Your task to perform on an android device: What's the latest video from GameSpot Trailers? Image 0: 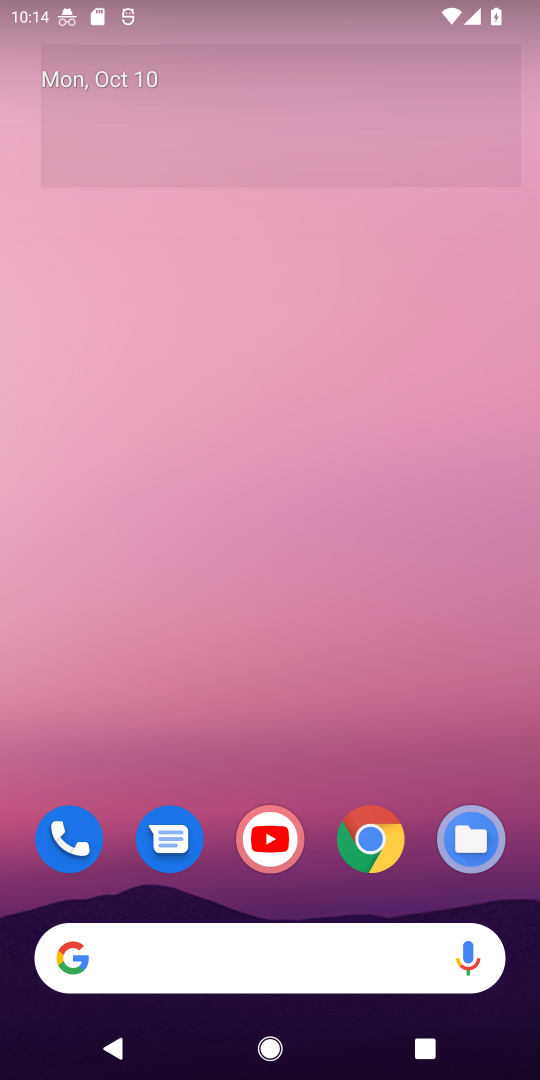
Step 0: drag from (332, 895) to (338, 74)
Your task to perform on an android device: What's the latest video from GameSpot Trailers? Image 1: 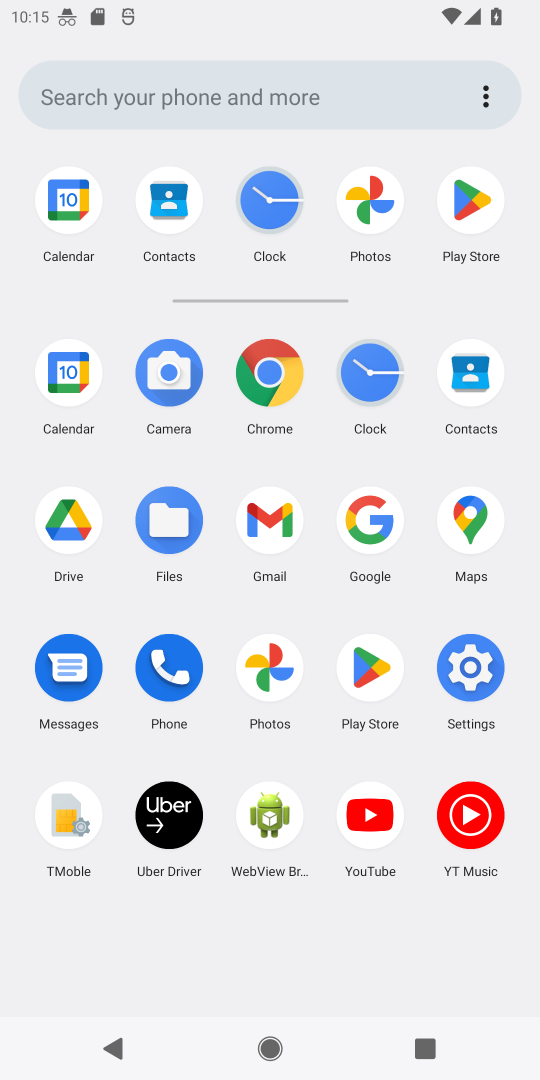
Step 1: click (363, 806)
Your task to perform on an android device: What's the latest video from GameSpot Trailers? Image 2: 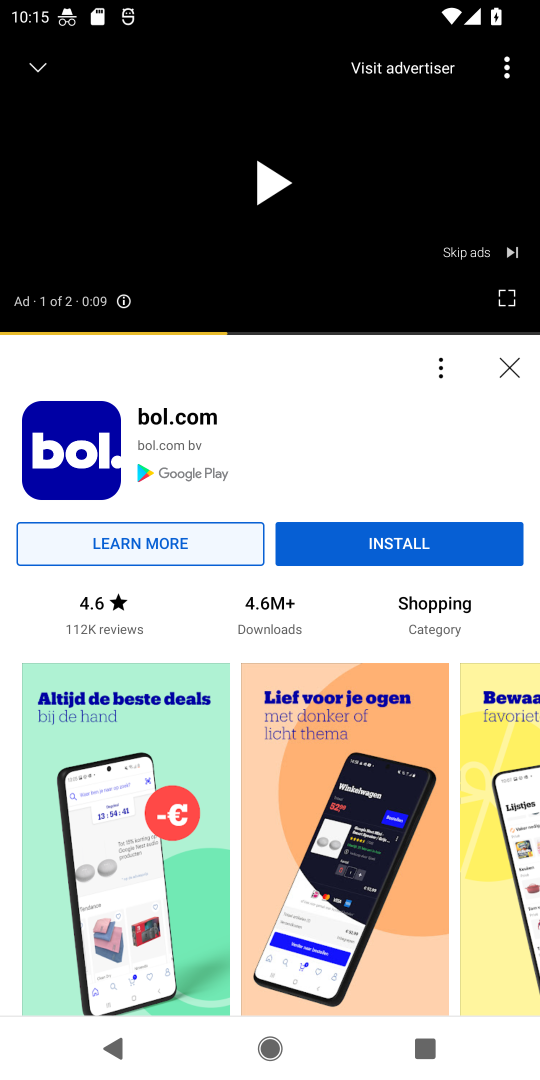
Step 2: drag from (412, 185) to (388, 851)
Your task to perform on an android device: What's the latest video from GameSpot Trailers? Image 3: 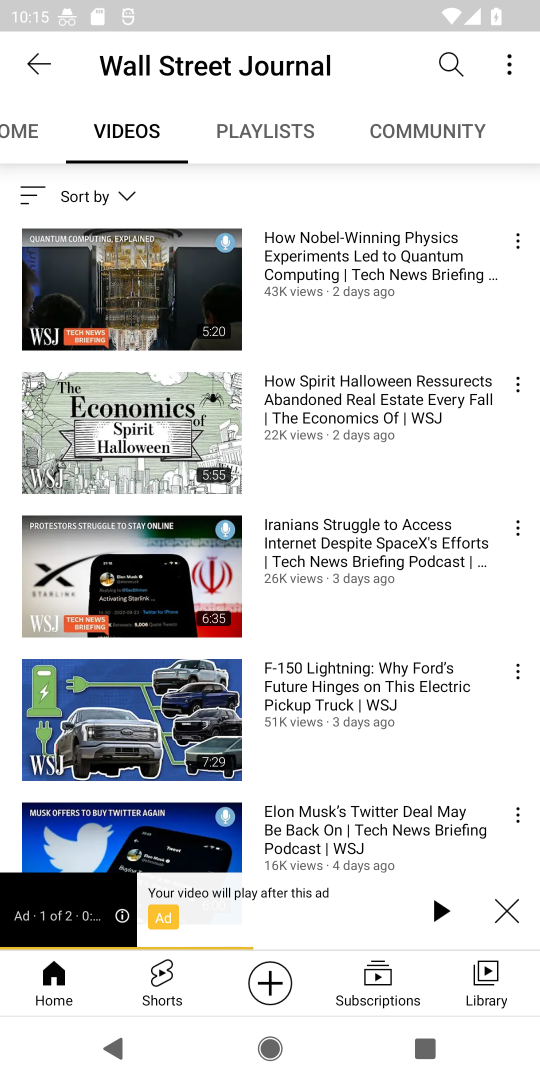
Step 3: click (451, 62)
Your task to perform on an android device: What's the latest video from GameSpot Trailers? Image 4: 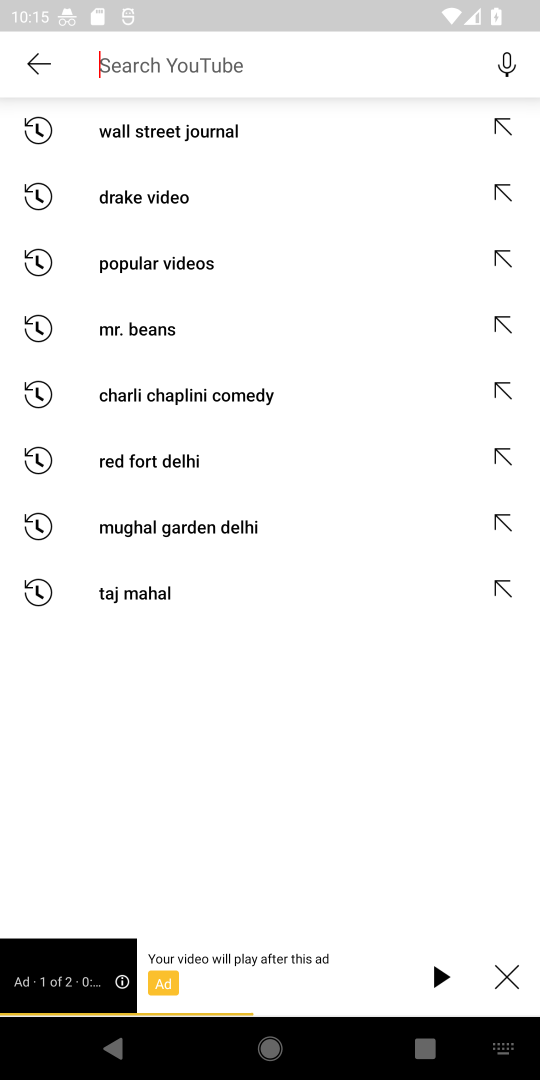
Step 4: type "GameSpot Trailers"
Your task to perform on an android device: What's the latest video from GameSpot Trailers? Image 5: 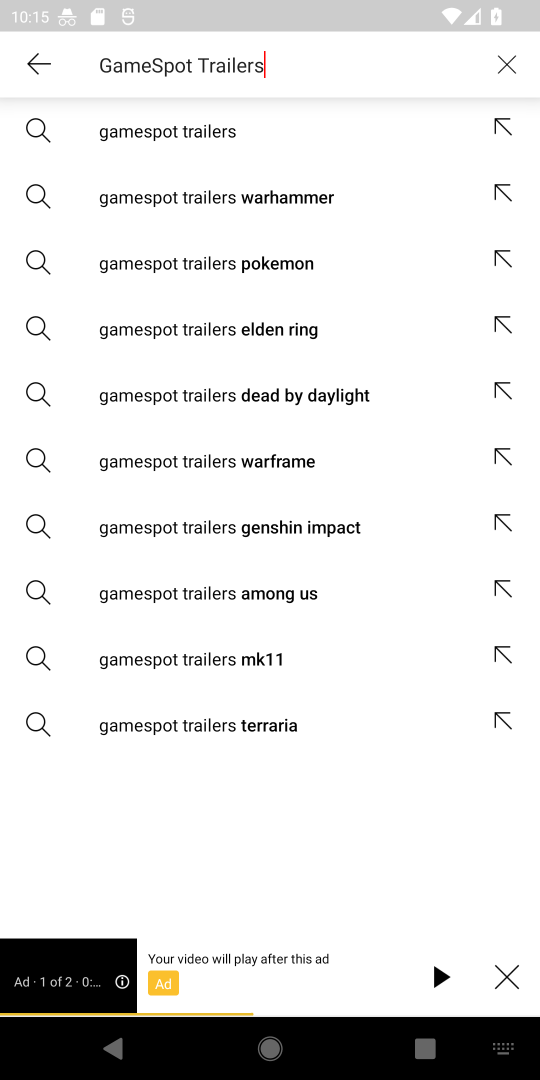
Step 5: press enter
Your task to perform on an android device: What's the latest video from GameSpot Trailers? Image 6: 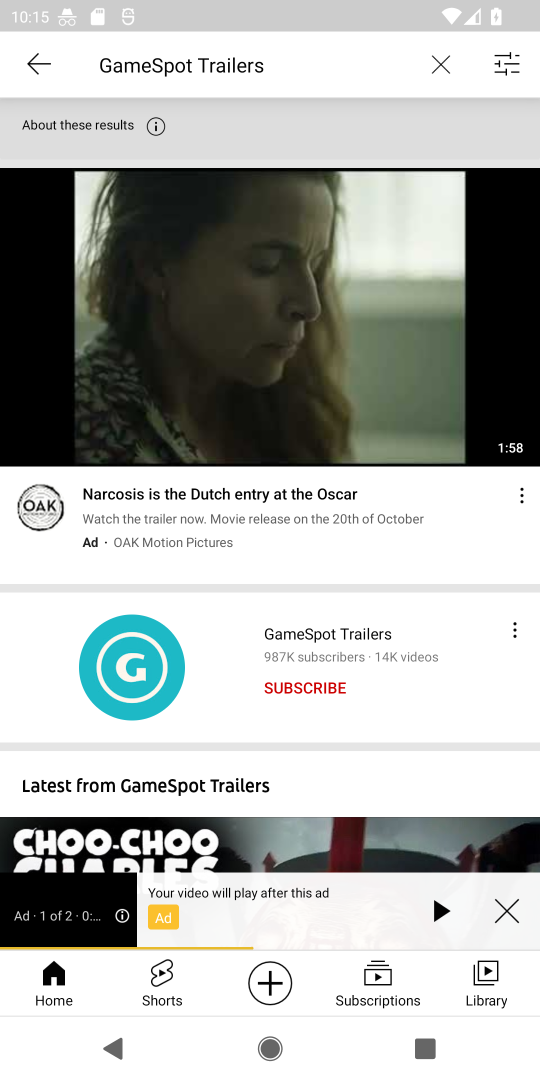
Step 6: drag from (296, 702) to (336, 120)
Your task to perform on an android device: What's the latest video from GameSpot Trailers? Image 7: 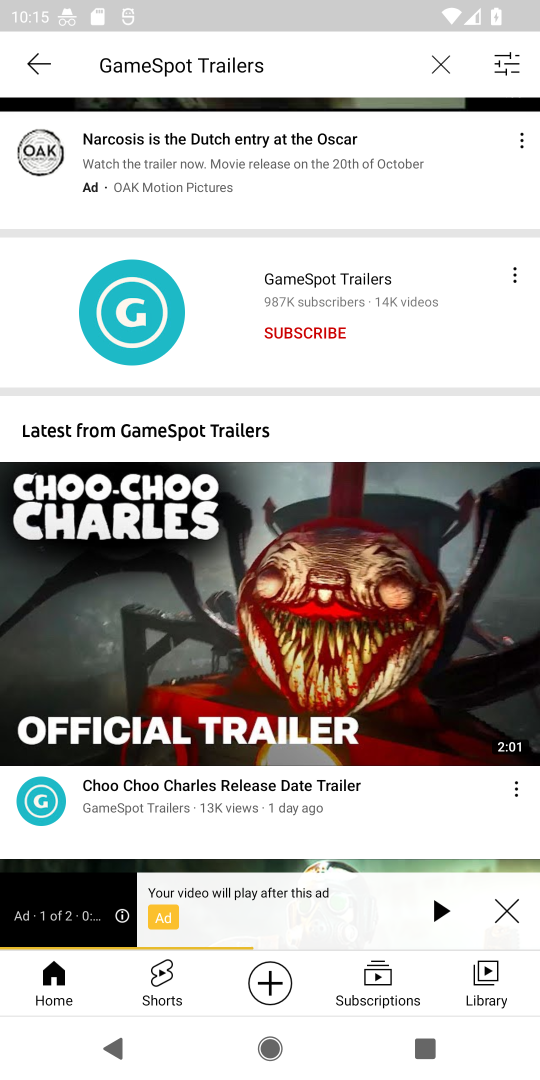
Step 7: drag from (176, 815) to (302, 290)
Your task to perform on an android device: What's the latest video from GameSpot Trailers? Image 8: 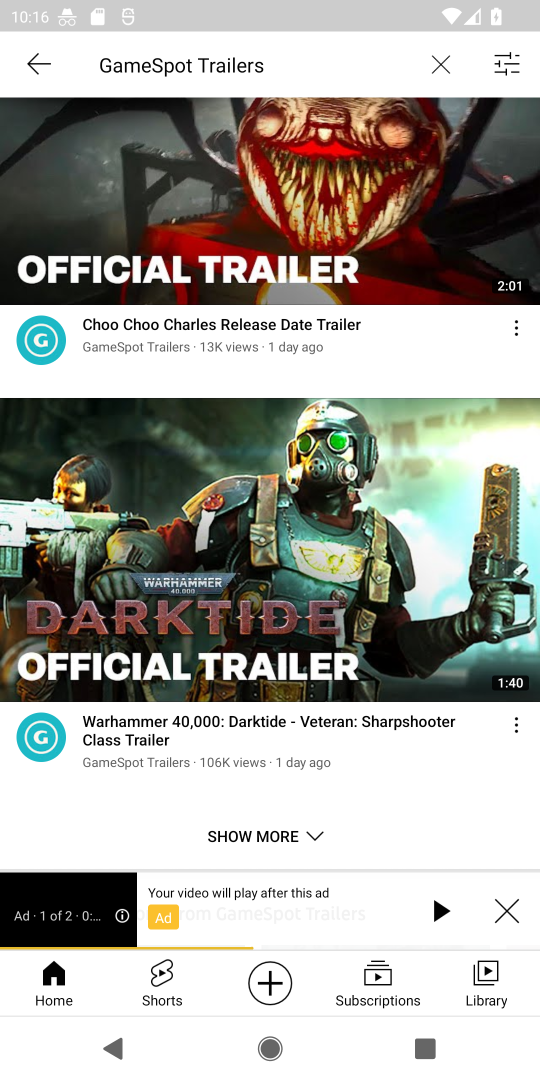
Step 8: click (36, 345)
Your task to perform on an android device: What's the latest video from GameSpot Trailers? Image 9: 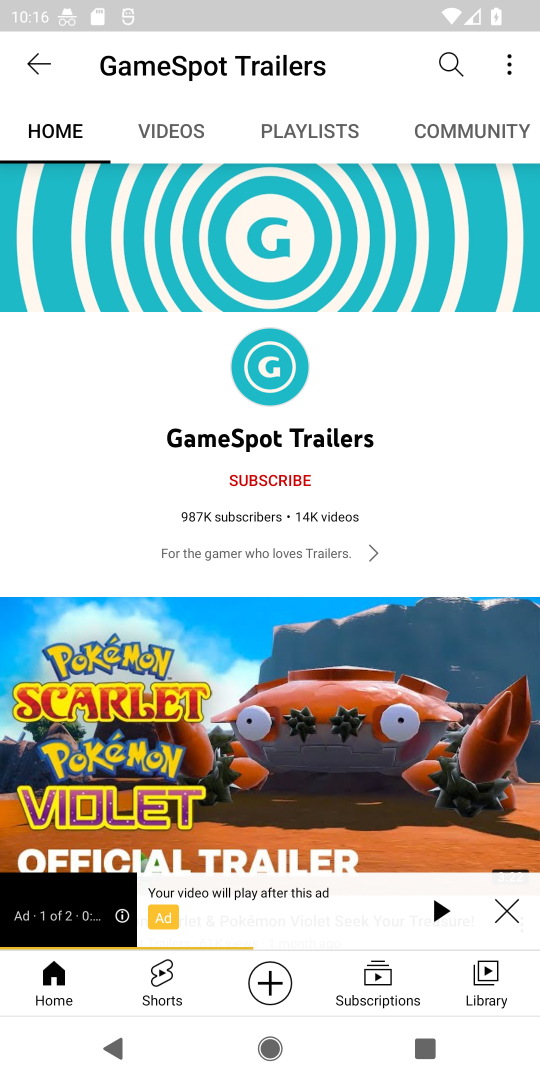
Step 9: click (153, 125)
Your task to perform on an android device: What's the latest video from GameSpot Trailers? Image 10: 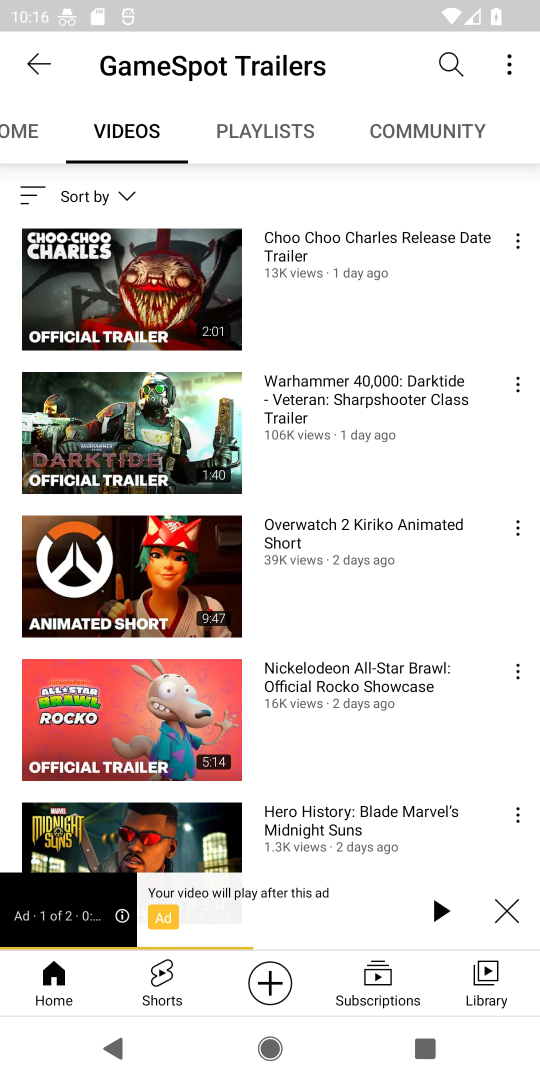
Step 10: click (117, 299)
Your task to perform on an android device: What's the latest video from GameSpot Trailers? Image 11: 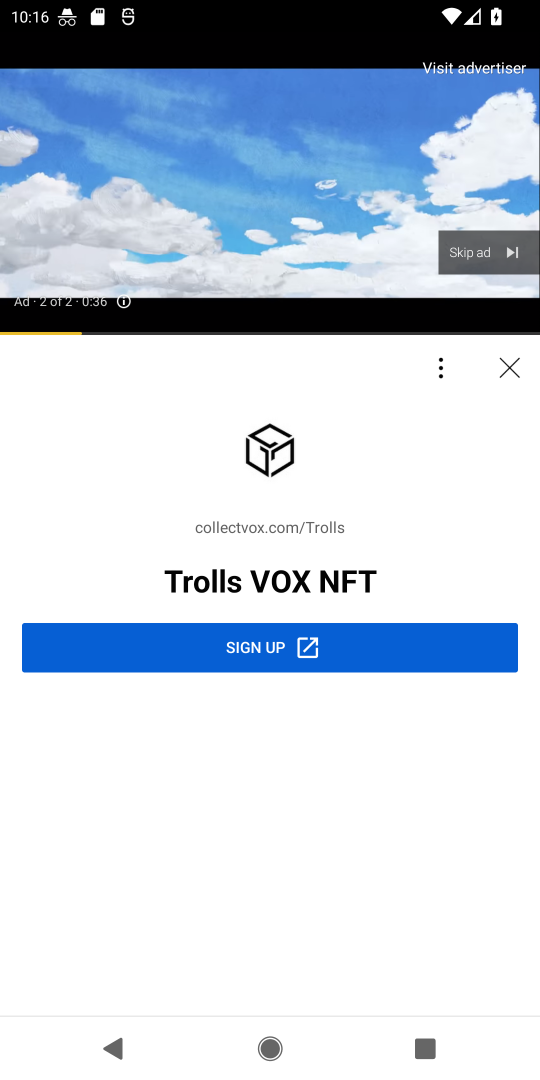
Step 11: click (476, 246)
Your task to perform on an android device: What's the latest video from GameSpot Trailers? Image 12: 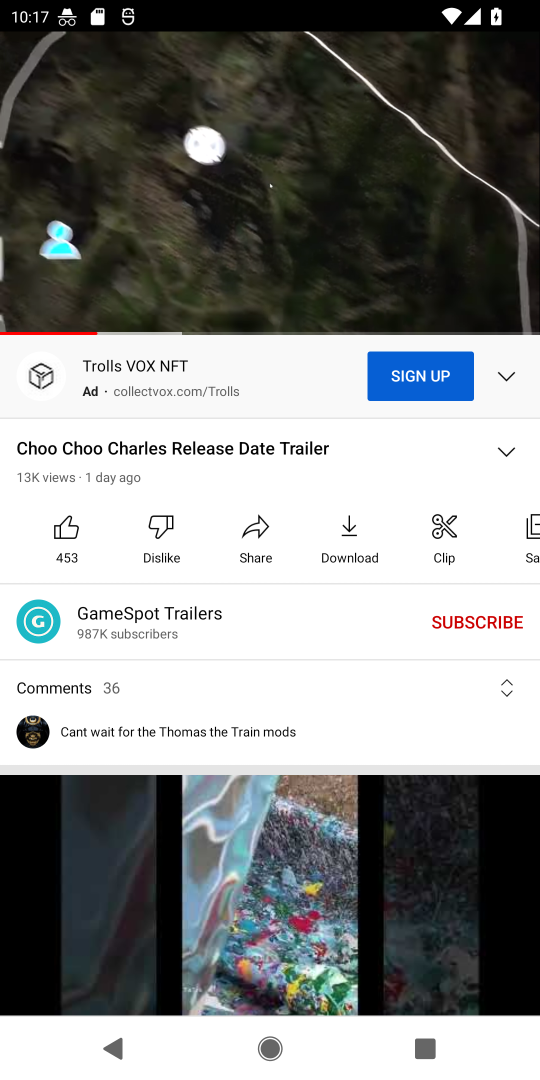
Step 12: task complete